Your task to perform on an android device: Open calendar and show me the second week of next month Image 0: 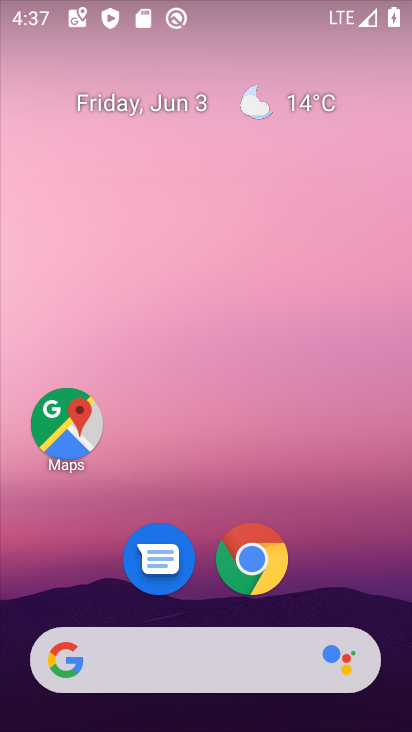
Step 0: drag from (336, 590) to (387, 91)
Your task to perform on an android device: Open calendar and show me the second week of next month Image 1: 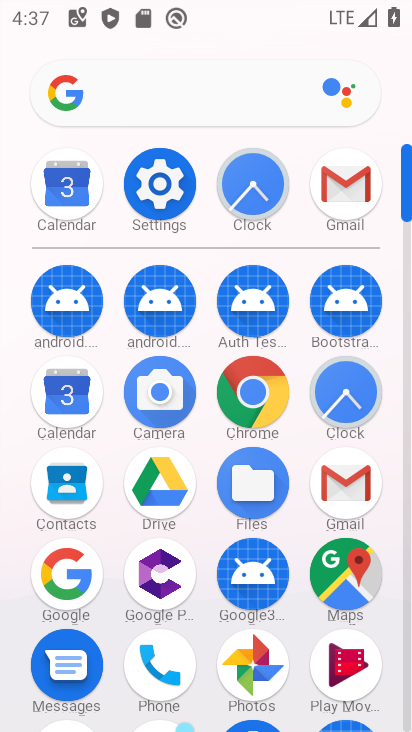
Step 1: click (57, 393)
Your task to perform on an android device: Open calendar and show me the second week of next month Image 2: 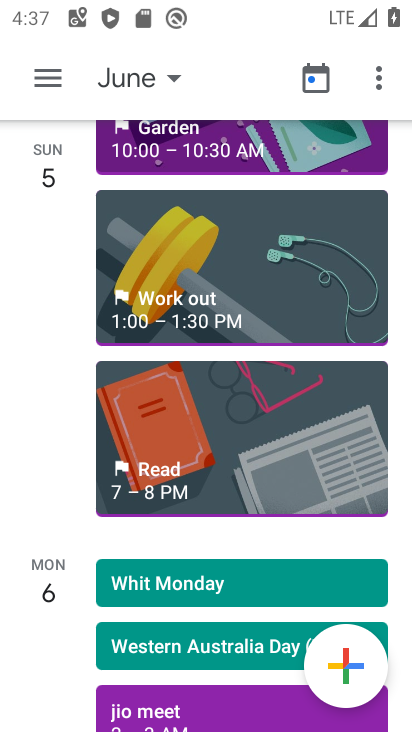
Step 2: click (159, 80)
Your task to perform on an android device: Open calendar and show me the second week of next month Image 3: 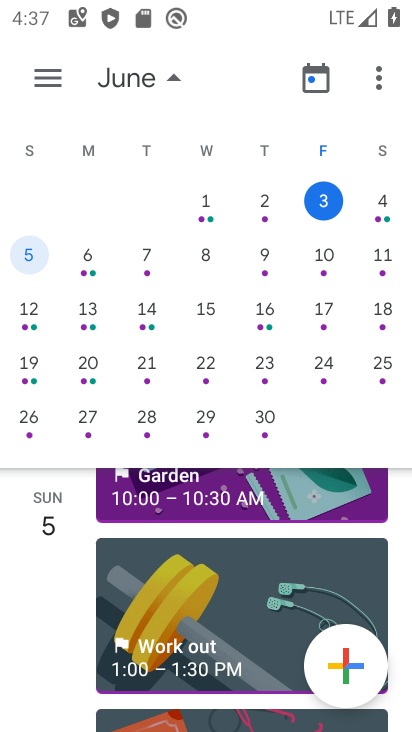
Step 3: drag from (353, 275) to (17, 265)
Your task to perform on an android device: Open calendar and show me the second week of next month Image 4: 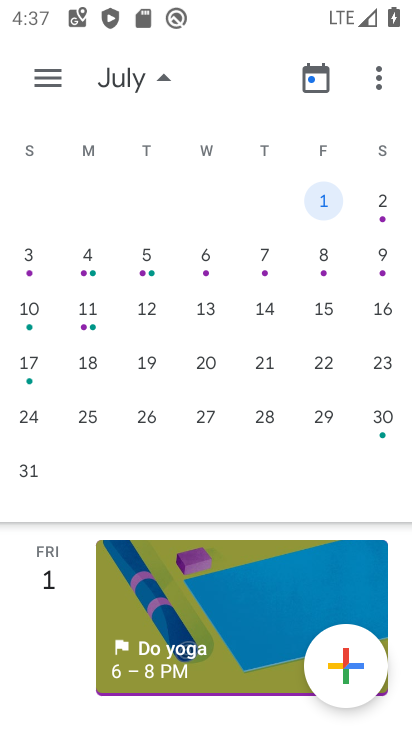
Step 4: click (262, 306)
Your task to perform on an android device: Open calendar and show me the second week of next month Image 5: 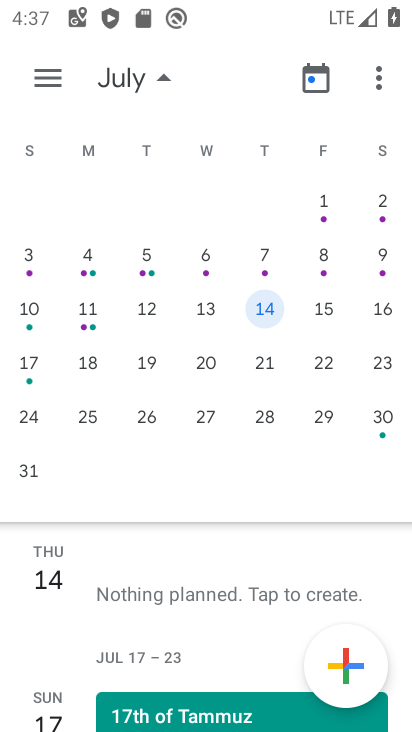
Step 5: task complete